Your task to perform on an android device: find photos in the google photos app Image 0: 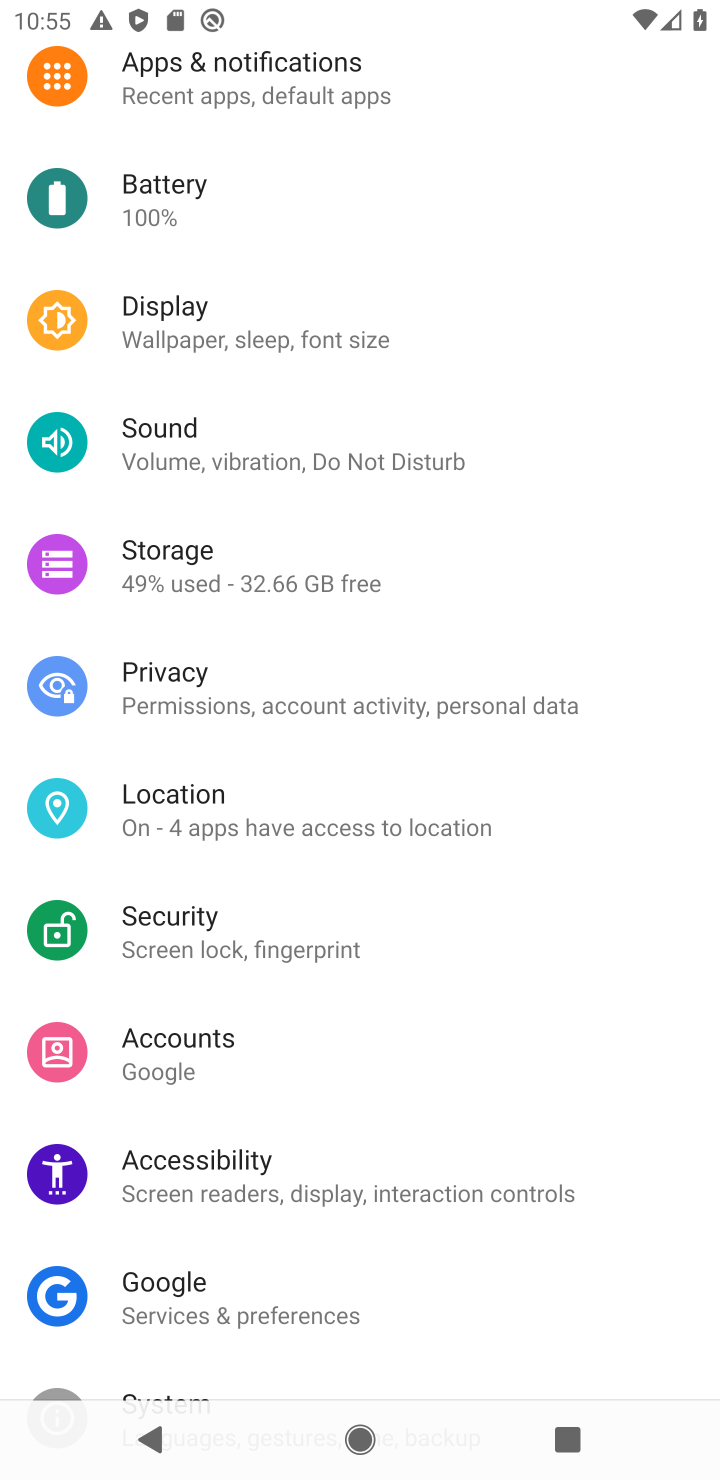
Step 0: press home button
Your task to perform on an android device: find photos in the google photos app Image 1: 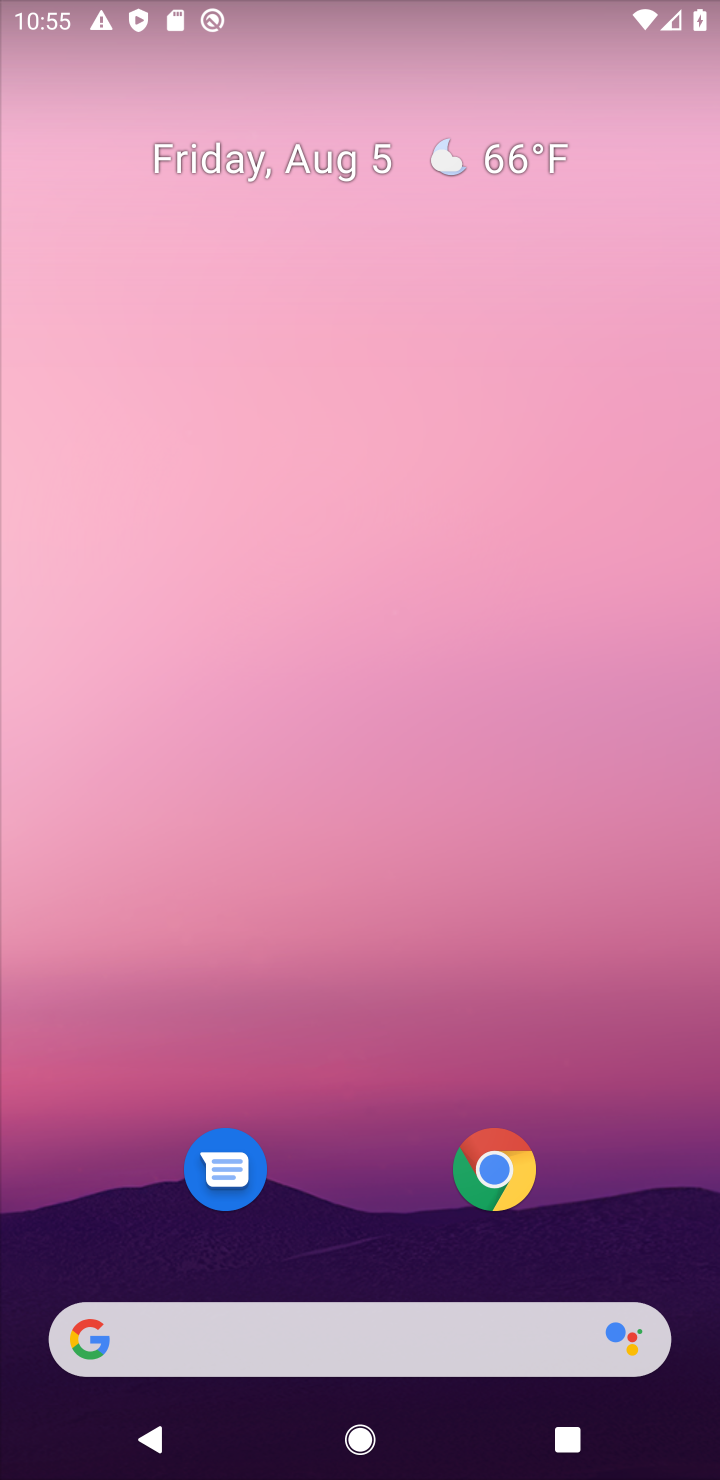
Step 1: drag from (329, 1012) to (386, 0)
Your task to perform on an android device: find photos in the google photos app Image 2: 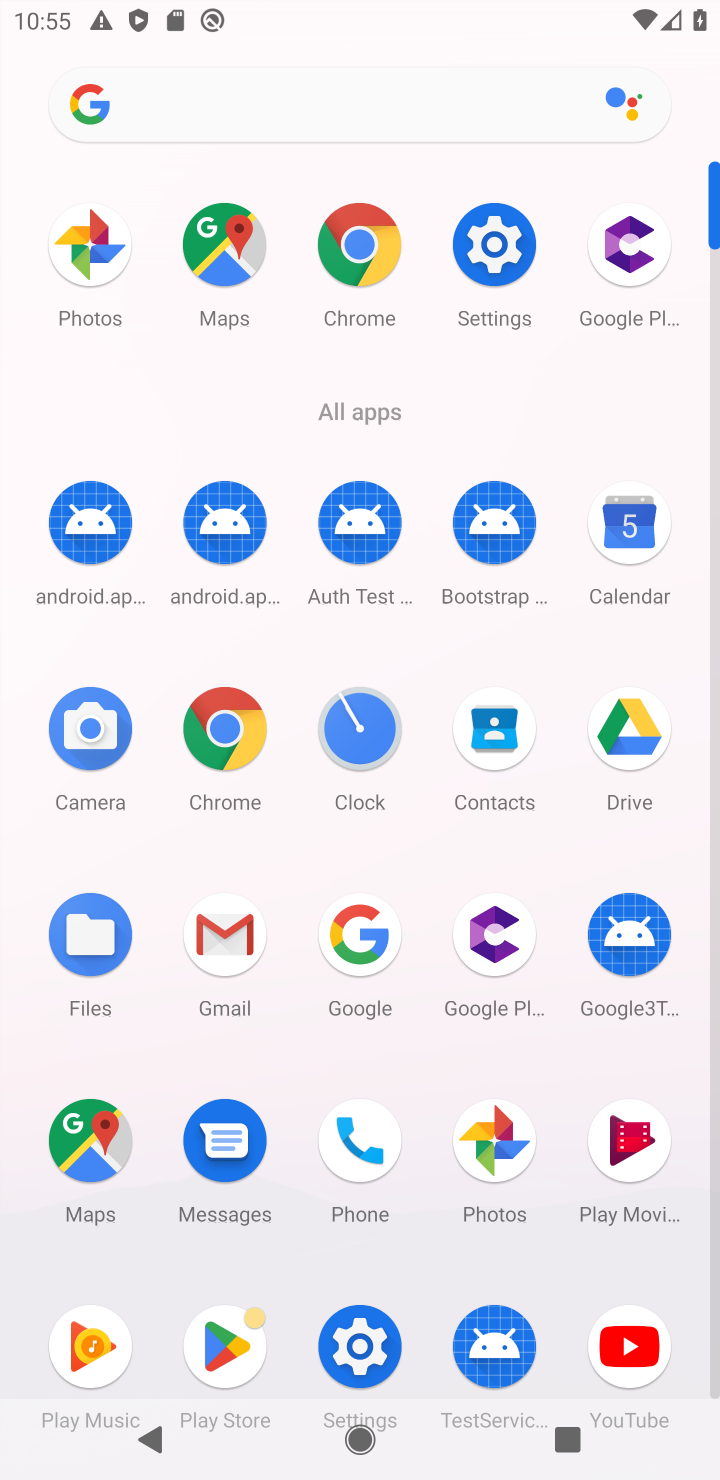
Step 2: click (426, 501)
Your task to perform on an android device: find photos in the google photos app Image 3: 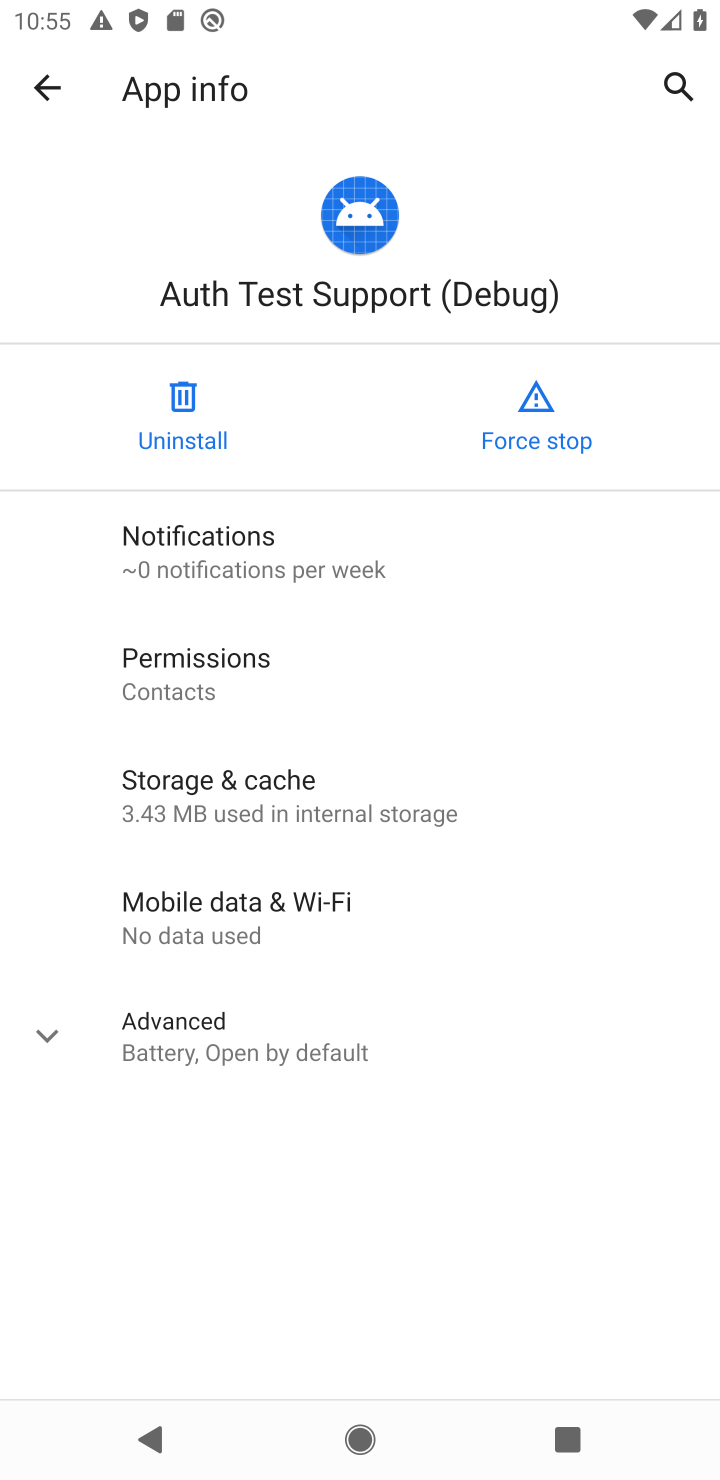
Step 3: click (489, 1188)
Your task to perform on an android device: find photos in the google photos app Image 4: 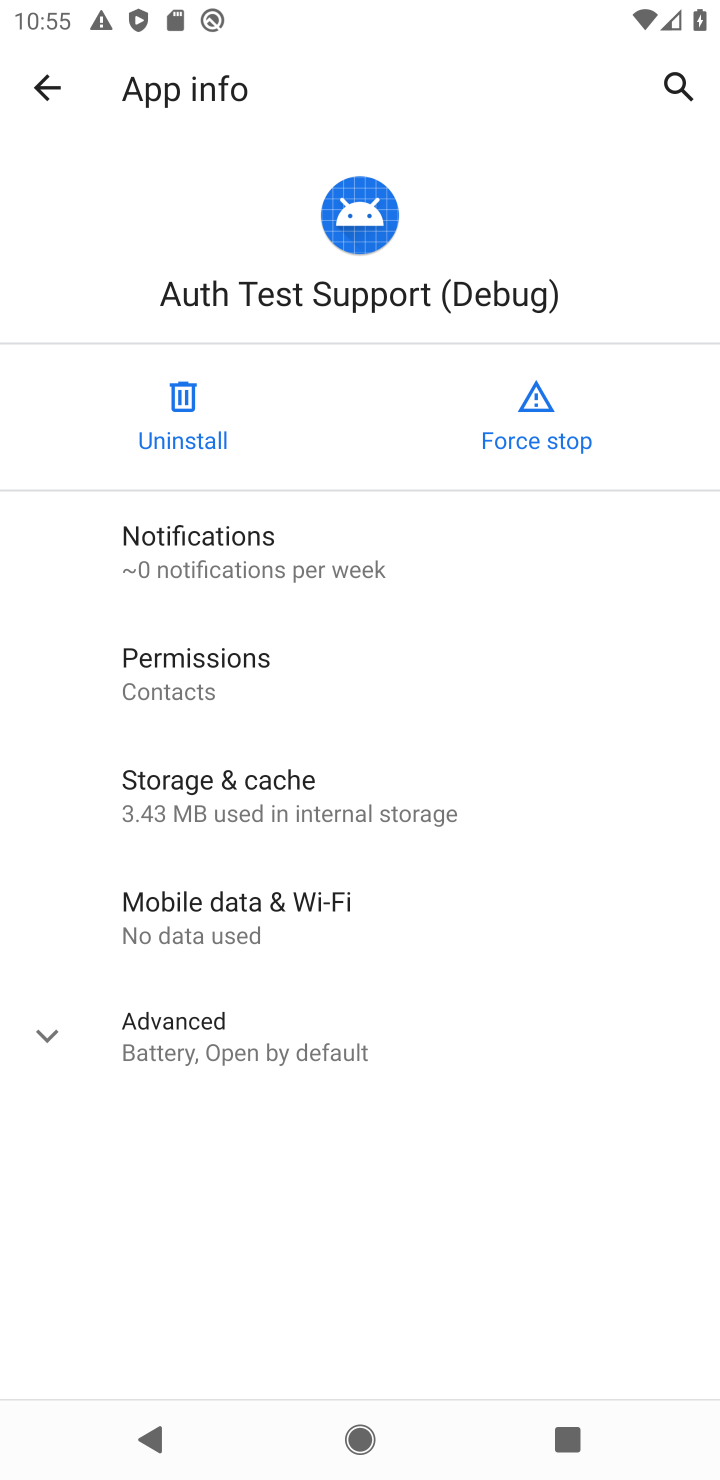
Step 4: press home button
Your task to perform on an android device: find photos in the google photos app Image 5: 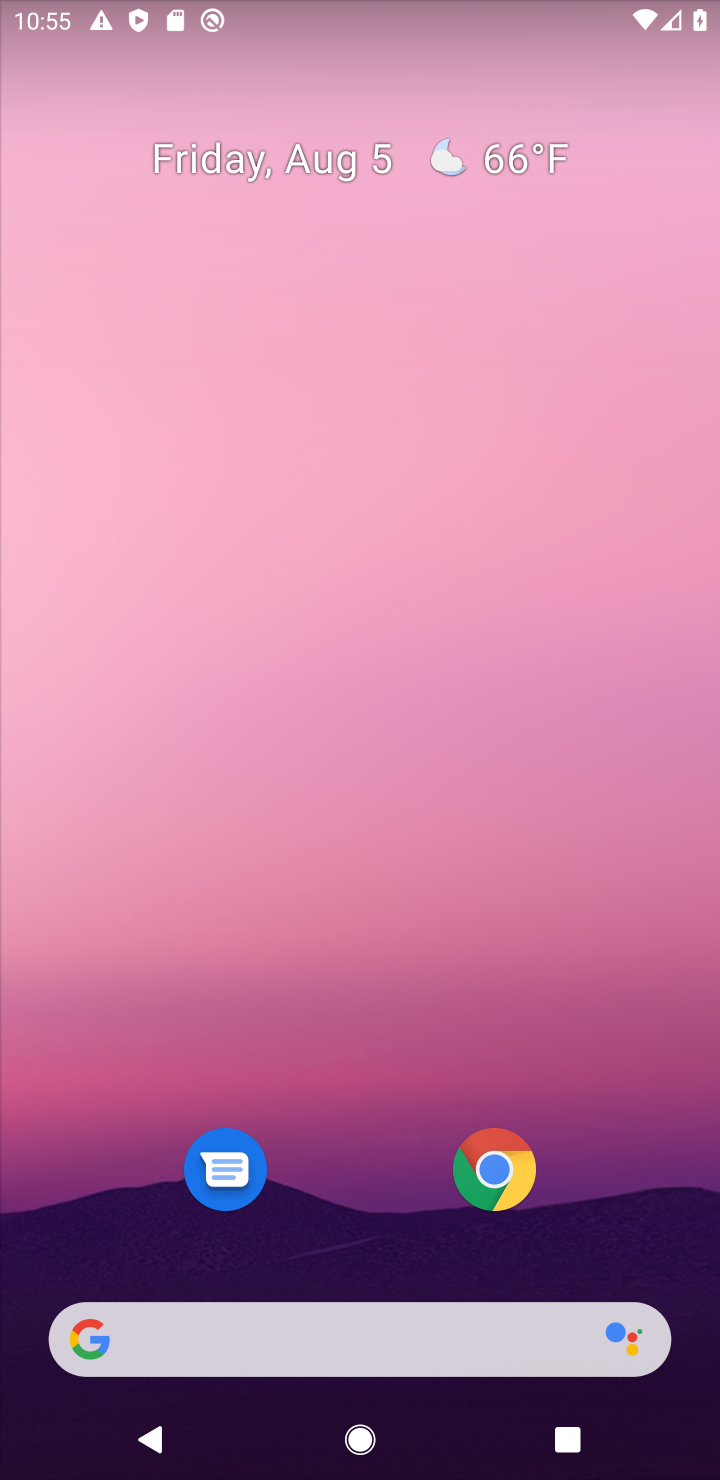
Step 5: drag from (354, 1246) to (390, 22)
Your task to perform on an android device: find photos in the google photos app Image 6: 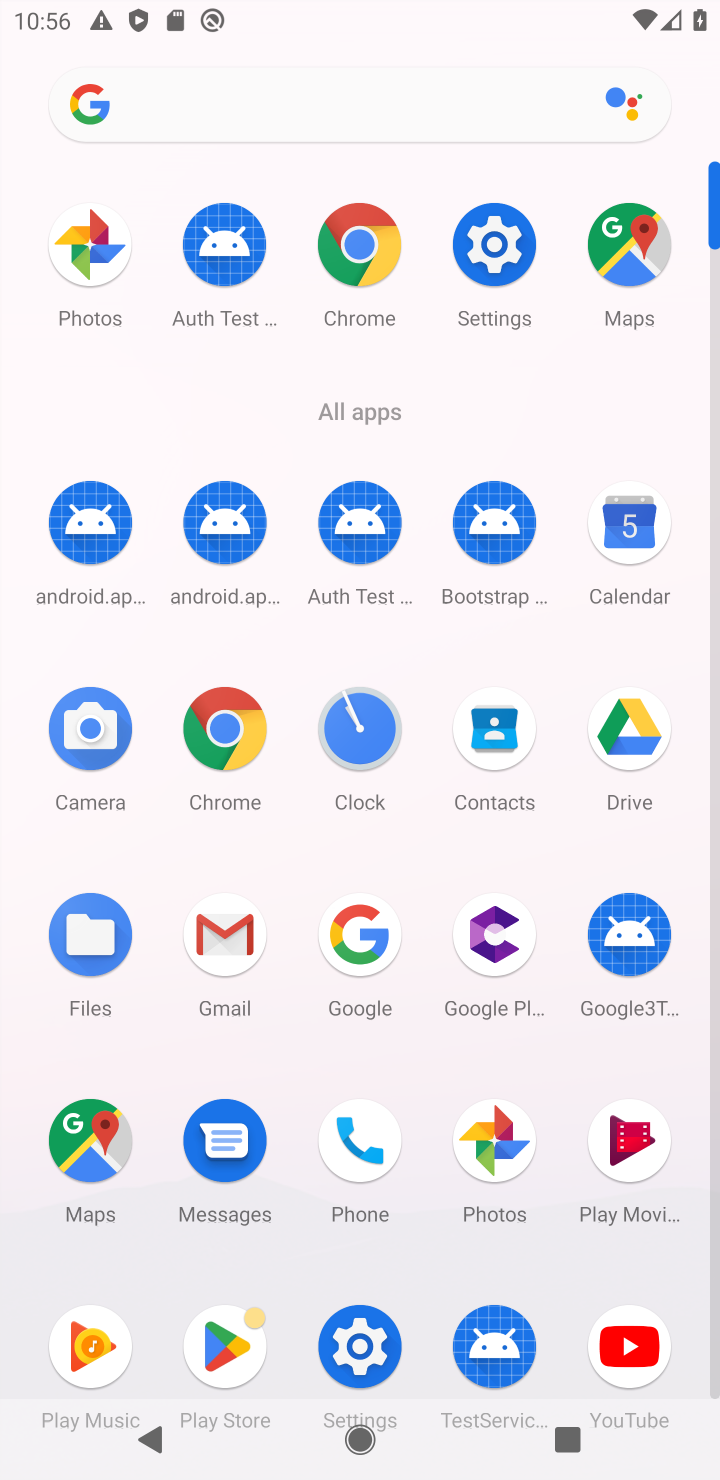
Step 6: click (479, 1176)
Your task to perform on an android device: find photos in the google photos app Image 7: 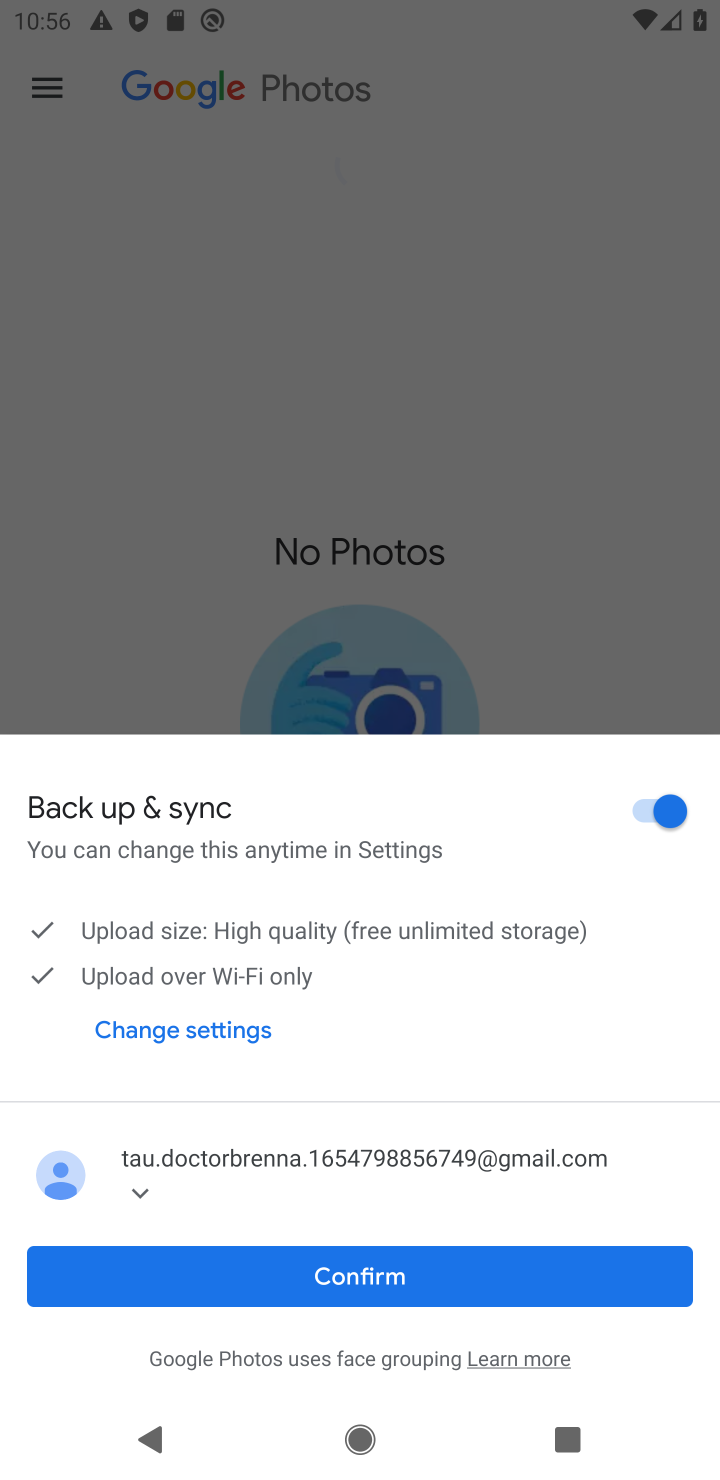
Step 7: click (372, 1278)
Your task to perform on an android device: find photos in the google photos app Image 8: 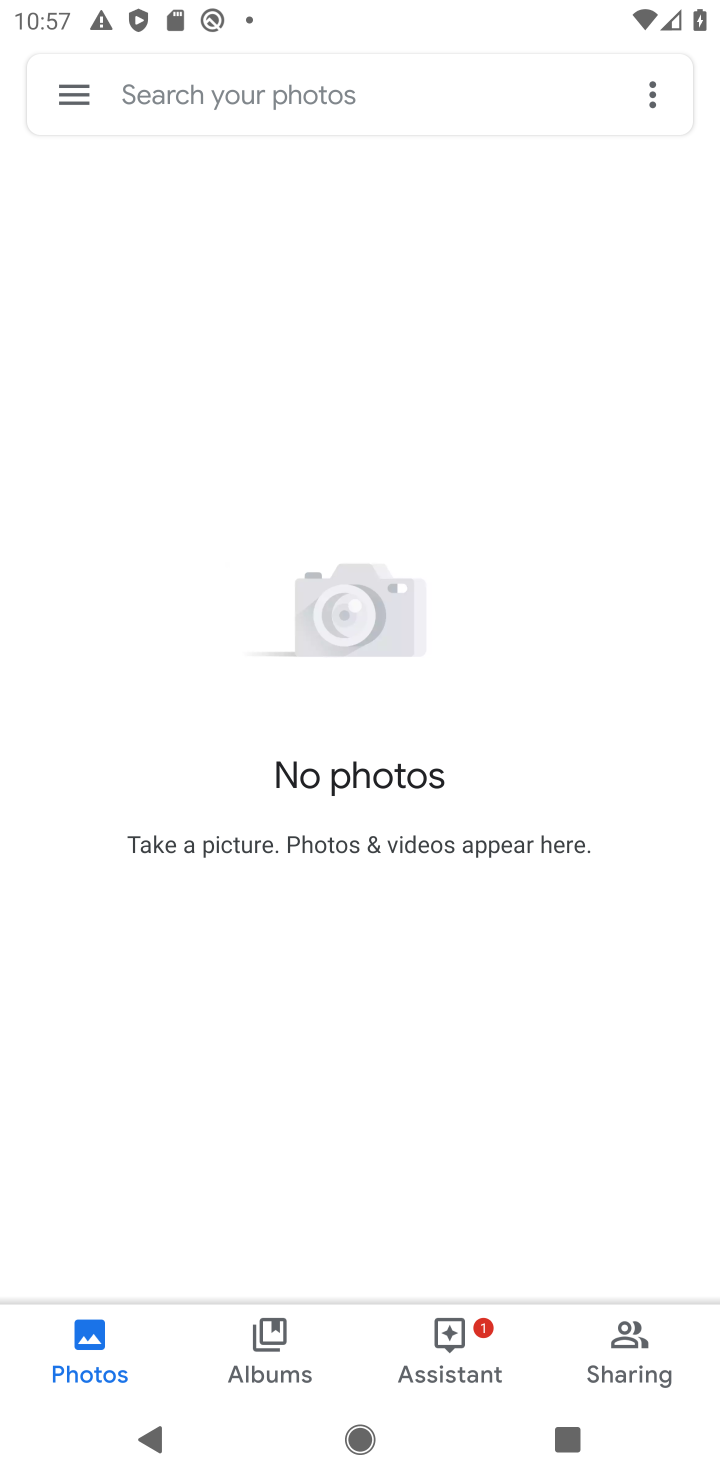
Step 8: task complete